Your task to perform on an android device: move an email to a new category in the gmail app Image 0: 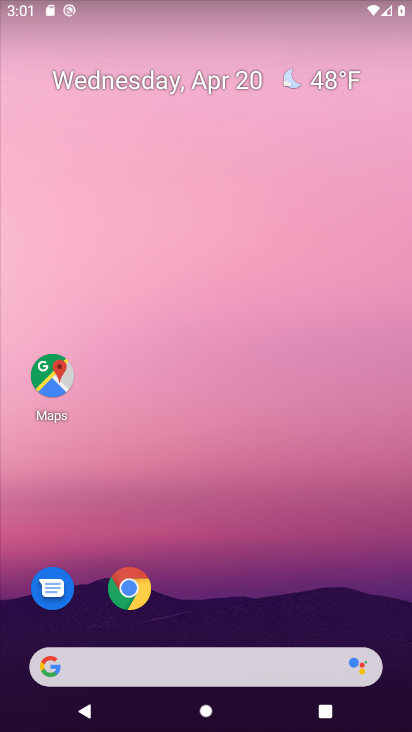
Step 0: drag from (329, 595) to (354, 127)
Your task to perform on an android device: move an email to a new category in the gmail app Image 1: 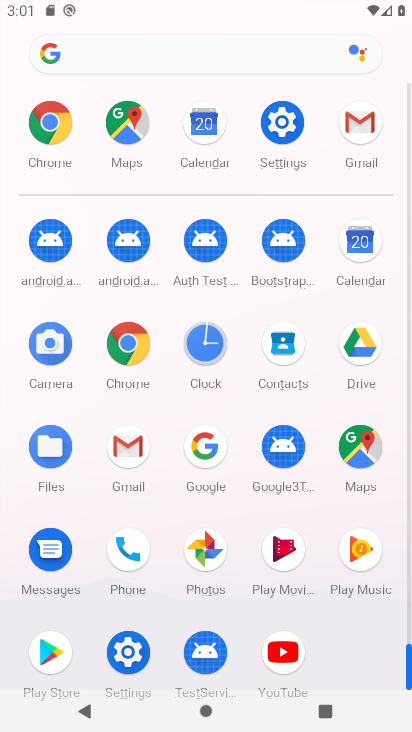
Step 1: click (364, 123)
Your task to perform on an android device: move an email to a new category in the gmail app Image 2: 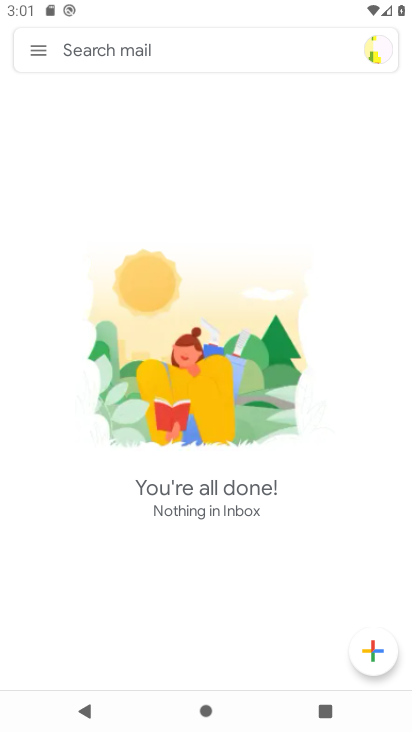
Step 2: click (45, 47)
Your task to perform on an android device: move an email to a new category in the gmail app Image 3: 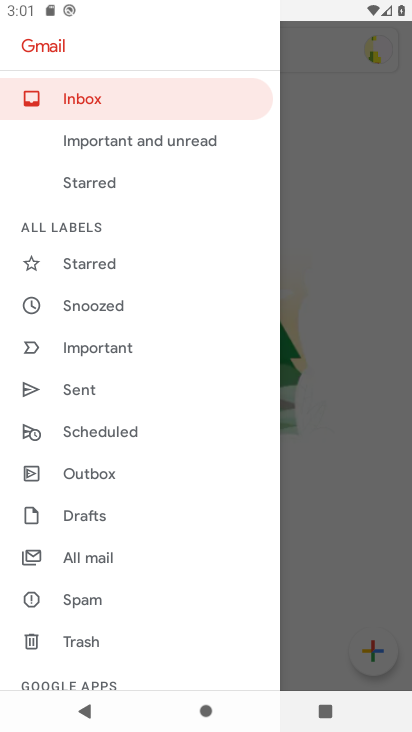
Step 3: drag from (177, 518) to (203, 275)
Your task to perform on an android device: move an email to a new category in the gmail app Image 4: 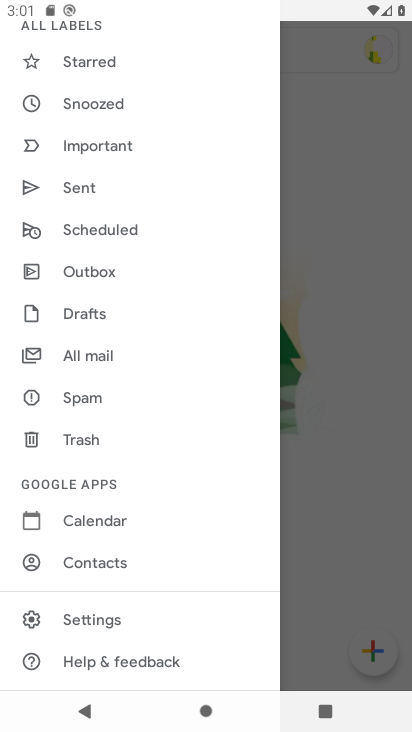
Step 4: drag from (229, 218) to (203, 504)
Your task to perform on an android device: move an email to a new category in the gmail app Image 5: 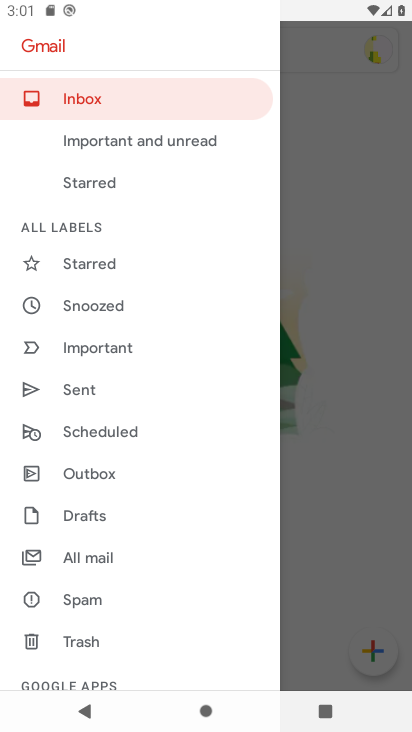
Step 5: click (88, 94)
Your task to perform on an android device: move an email to a new category in the gmail app Image 6: 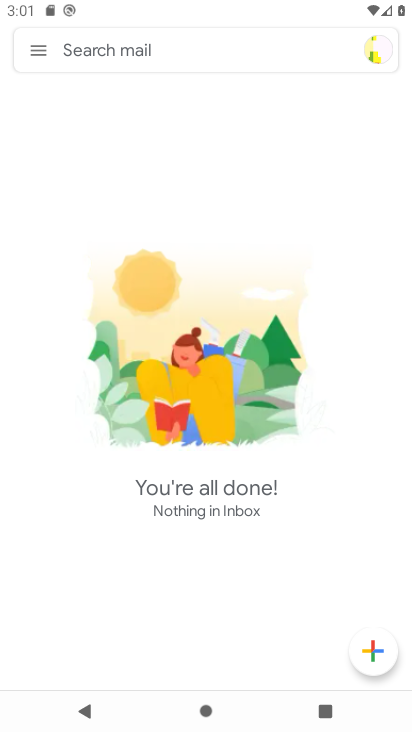
Step 6: task complete